Your task to perform on an android device: open app "Paramount+ | Peak Streaming" Image 0: 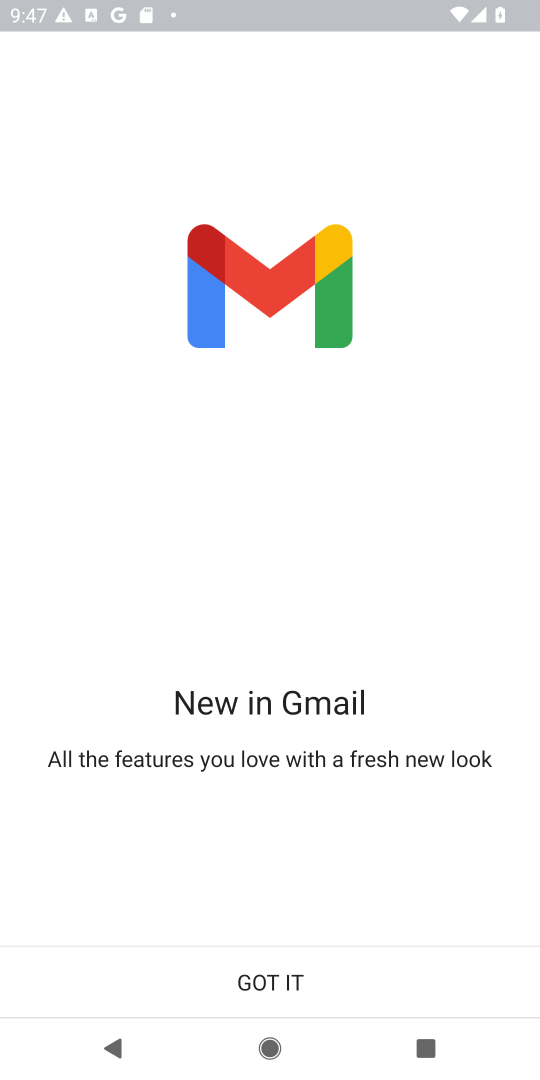
Step 0: press home button
Your task to perform on an android device: open app "Paramount+ | Peak Streaming" Image 1: 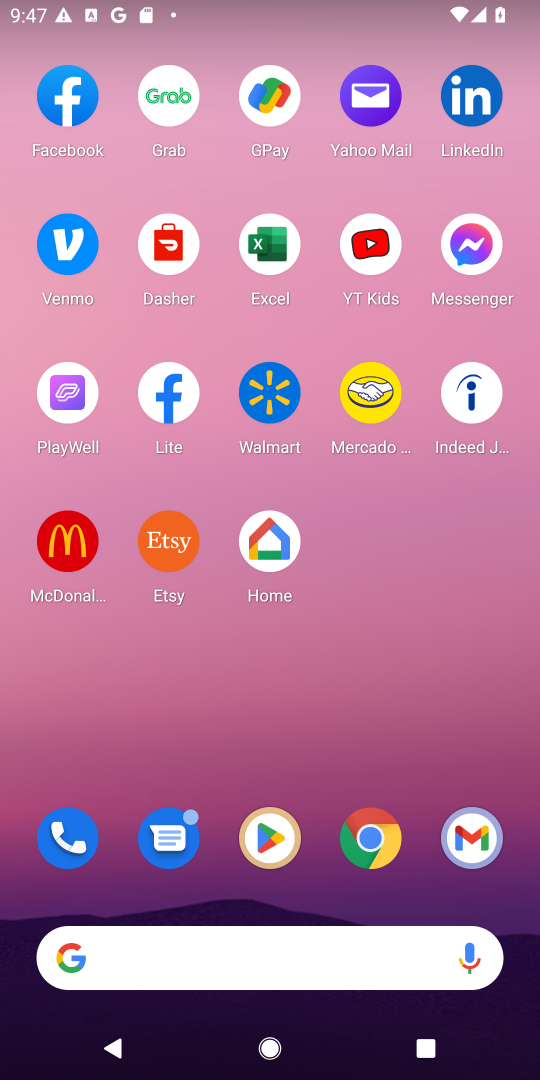
Step 1: click (240, 835)
Your task to perform on an android device: open app "Paramount+ | Peak Streaming" Image 2: 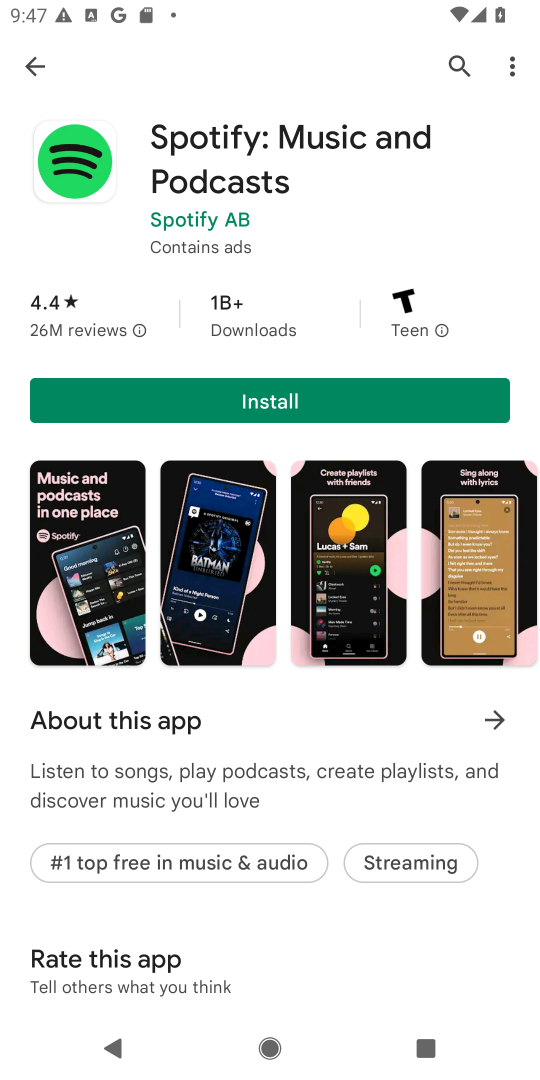
Step 2: click (468, 68)
Your task to perform on an android device: open app "Paramount+ | Peak Streaming" Image 3: 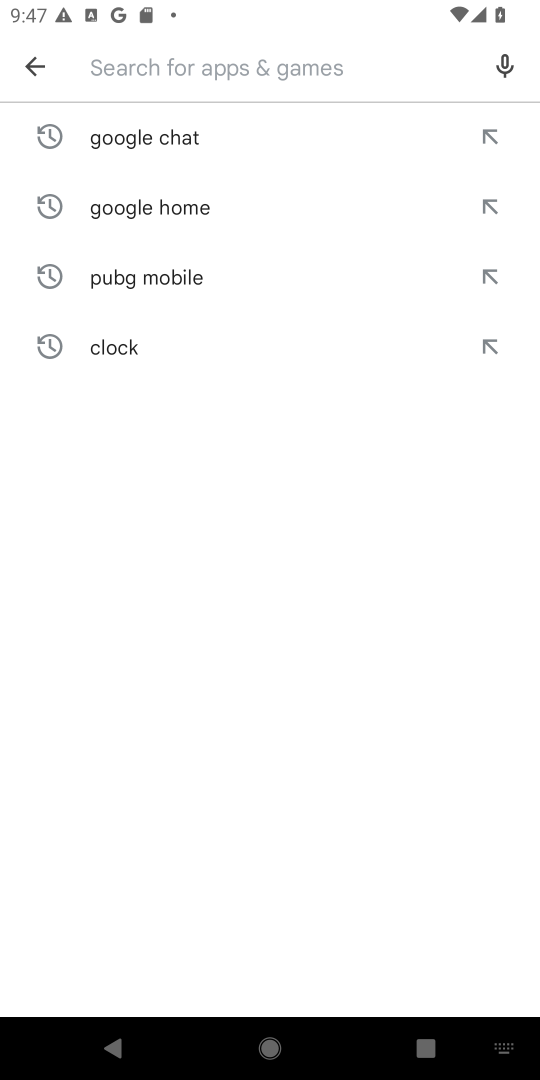
Step 3: type "Paramount+ | Peak Streaming"
Your task to perform on an android device: open app "Paramount+ | Peak Streaming" Image 4: 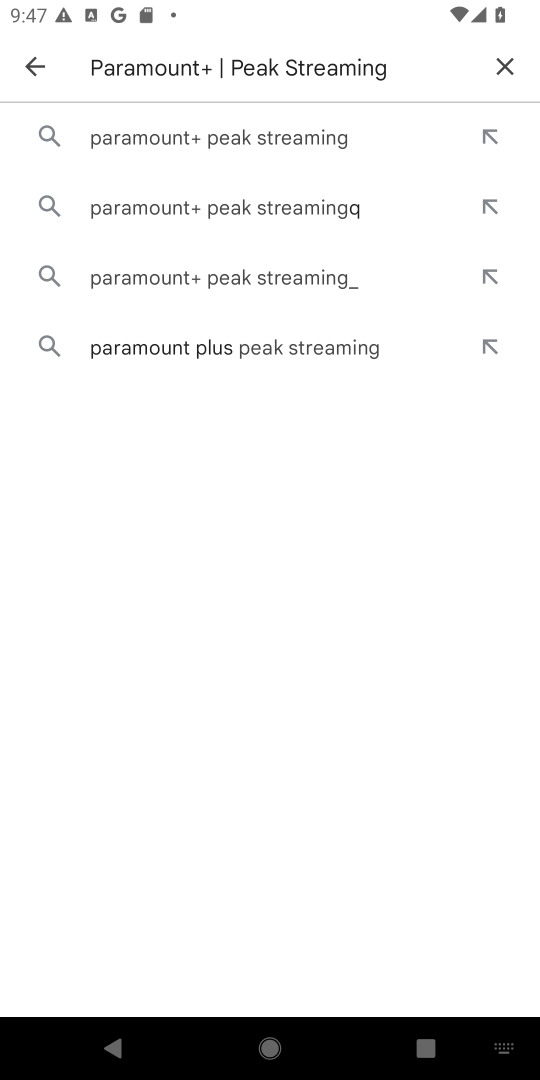
Step 4: click (206, 143)
Your task to perform on an android device: open app "Paramount+ | Peak Streaming" Image 5: 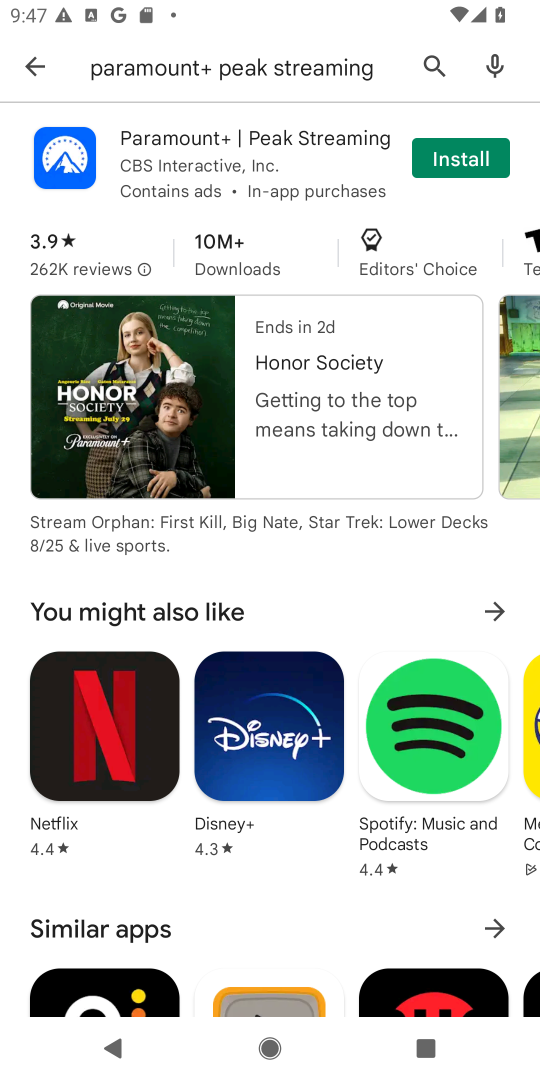
Step 5: task complete